Your task to perform on an android device: open app "Google Find My Device" (install if not already installed) Image 0: 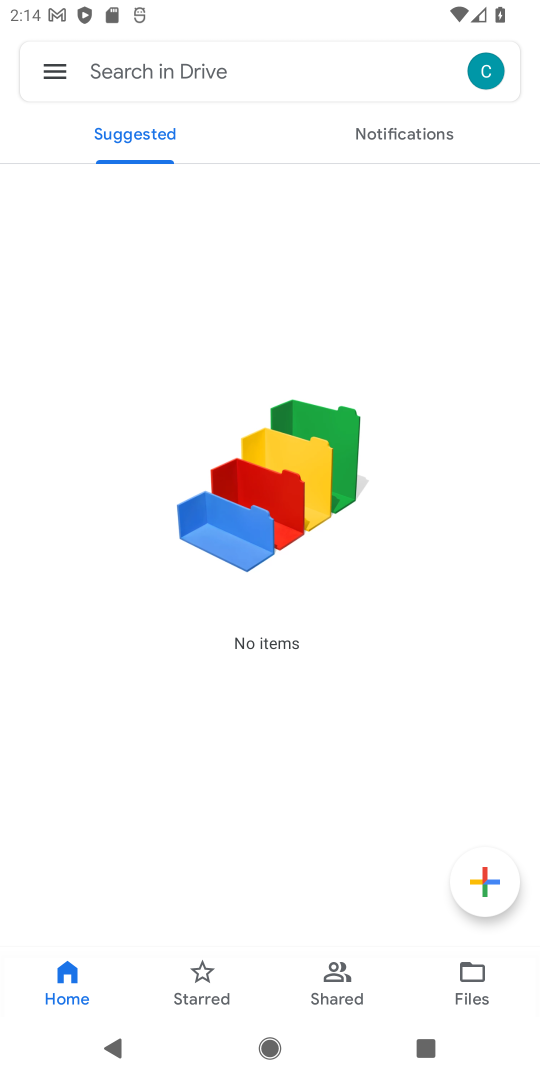
Step 0: press home button
Your task to perform on an android device: open app "Google Find My Device" (install if not already installed) Image 1: 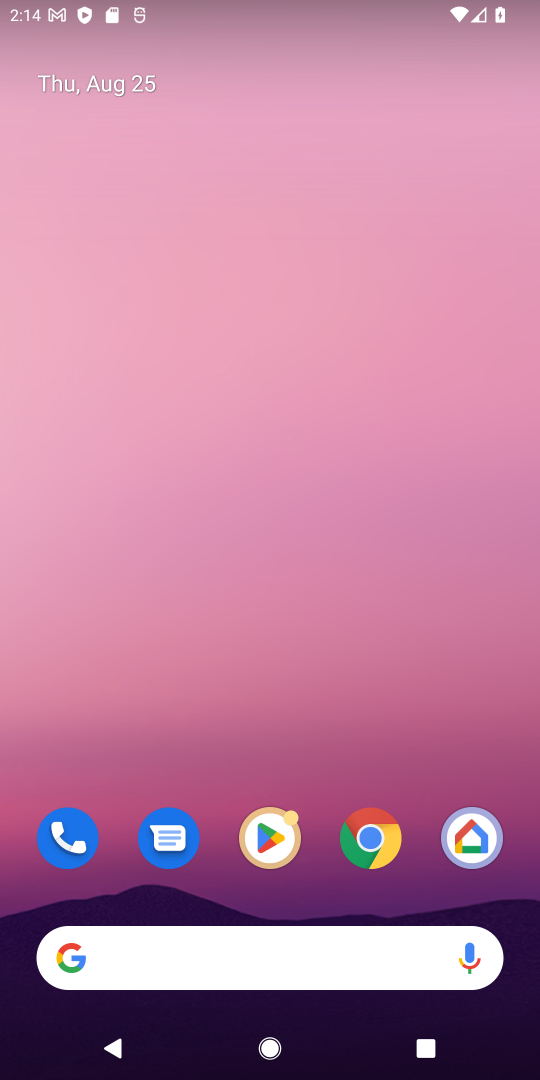
Step 1: click (272, 845)
Your task to perform on an android device: open app "Google Find My Device" (install if not already installed) Image 2: 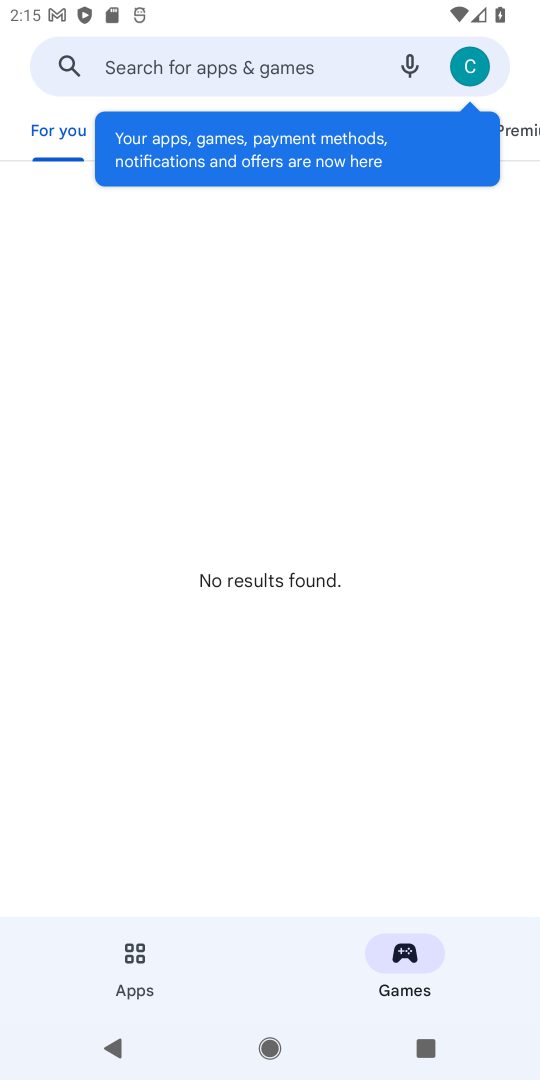
Step 2: click (227, 71)
Your task to perform on an android device: open app "Google Find My Device" (install if not already installed) Image 3: 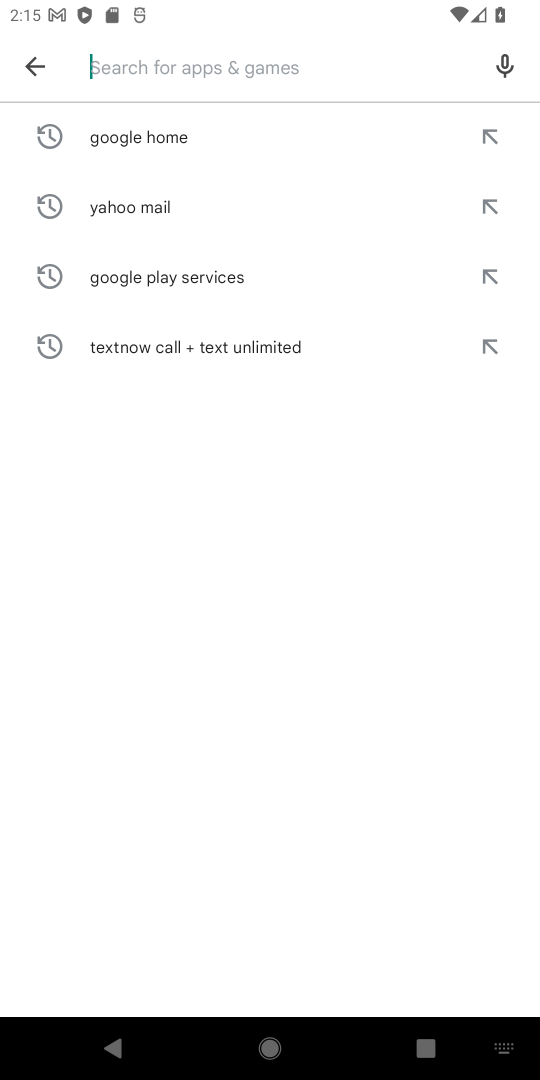
Step 3: type "Google Find My Device"
Your task to perform on an android device: open app "Google Find My Device" (install if not already installed) Image 4: 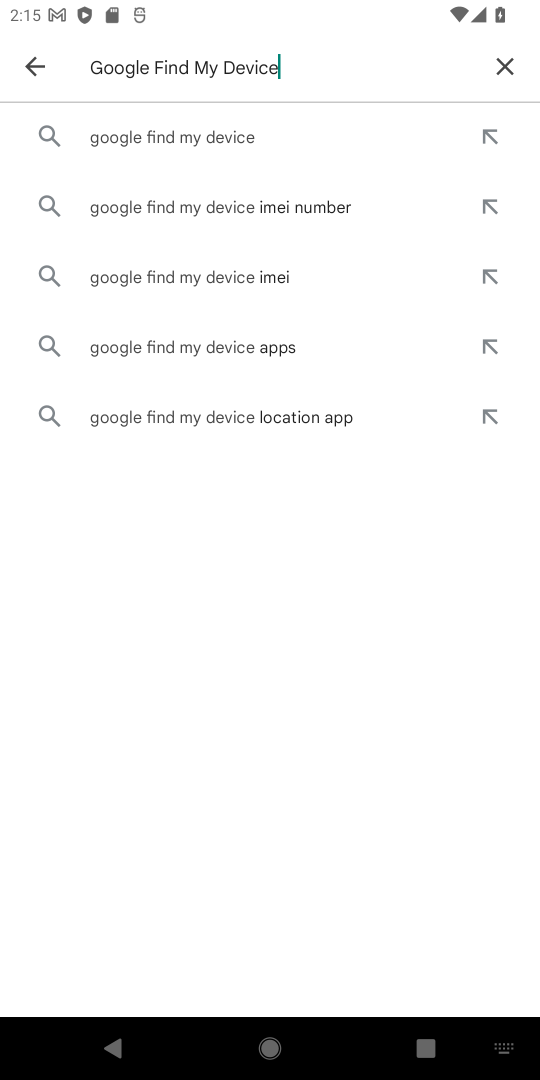
Step 4: click (144, 141)
Your task to perform on an android device: open app "Google Find My Device" (install if not already installed) Image 5: 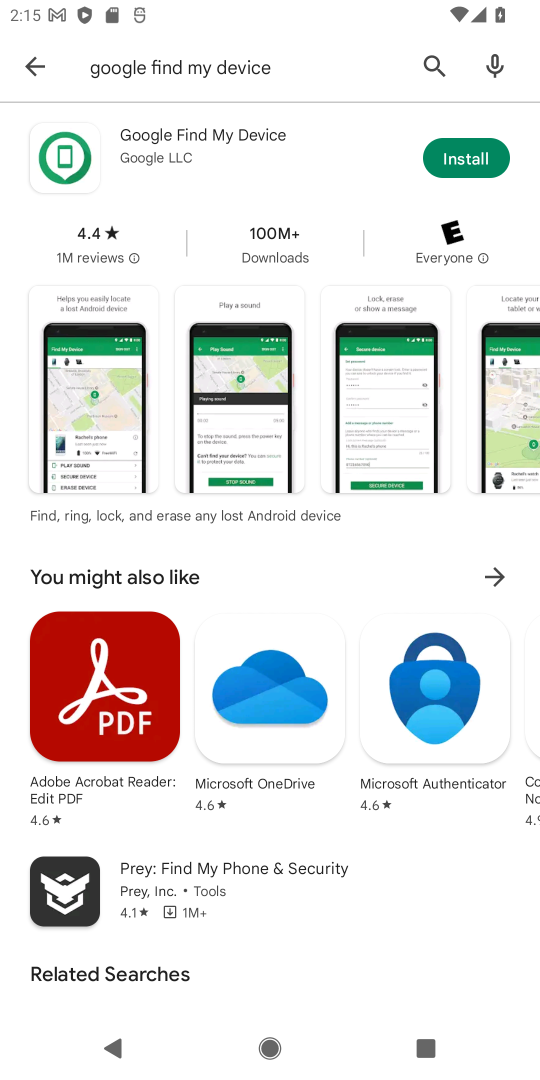
Step 5: click (459, 152)
Your task to perform on an android device: open app "Google Find My Device" (install if not already installed) Image 6: 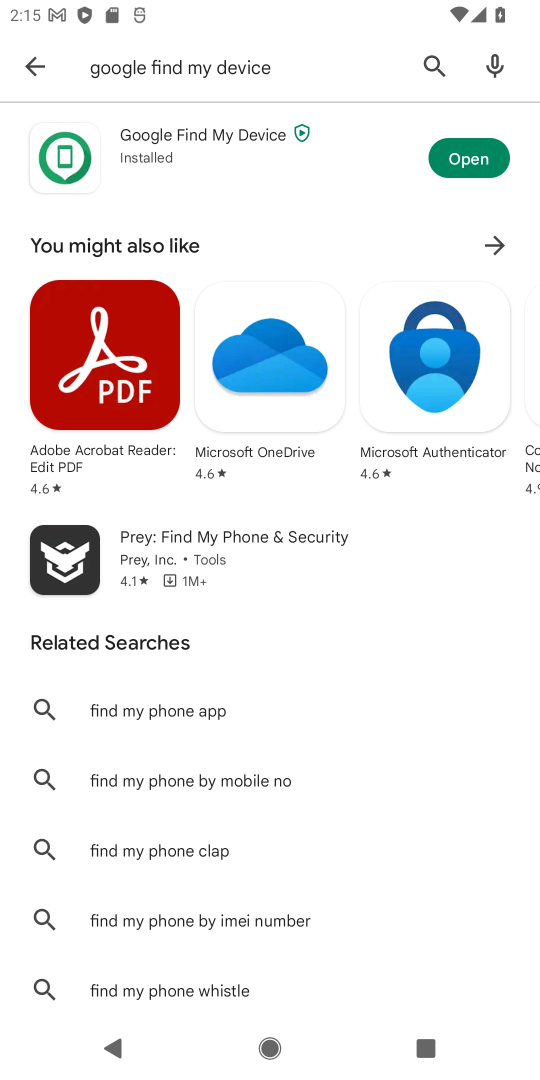
Step 6: click (468, 159)
Your task to perform on an android device: open app "Google Find My Device" (install if not already installed) Image 7: 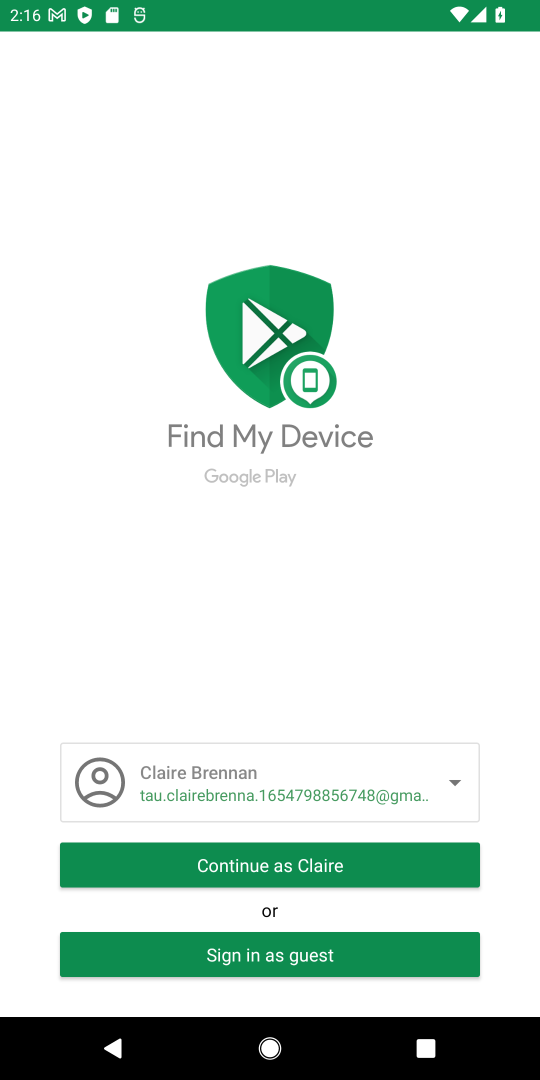
Step 7: task complete